Your task to perform on an android device: Search for sushi restaurants on Maps Image 0: 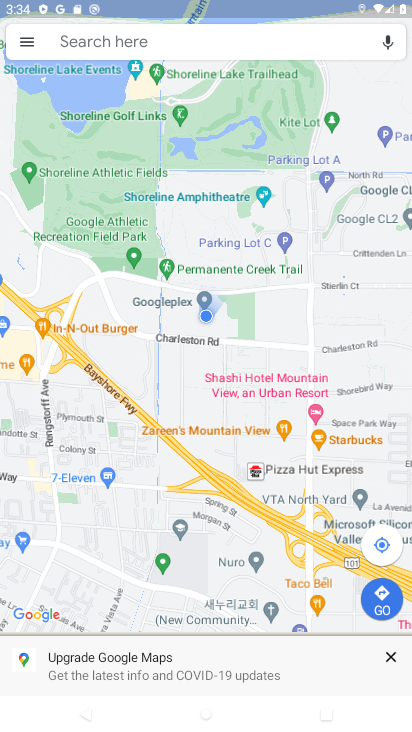
Step 0: task complete